Your task to perform on an android device: Do I have any events this weekend? Image 0: 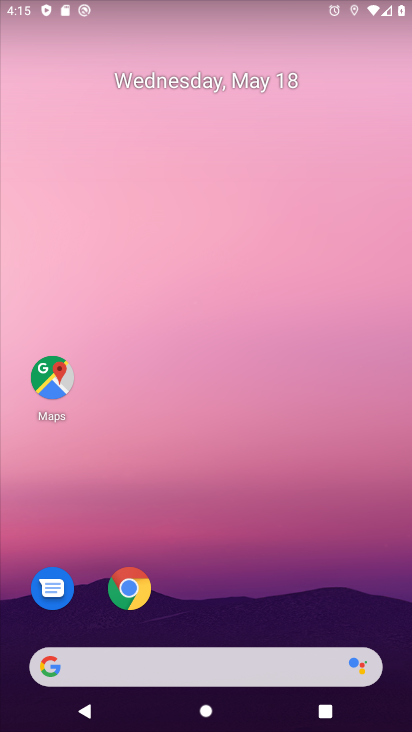
Step 0: drag from (270, 599) to (291, 122)
Your task to perform on an android device: Do I have any events this weekend? Image 1: 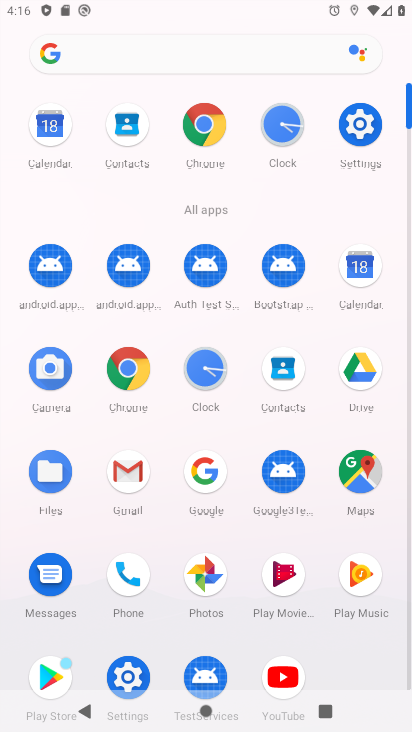
Step 1: click (367, 263)
Your task to perform on an android device: Do I have any events this weekend? Image 2: 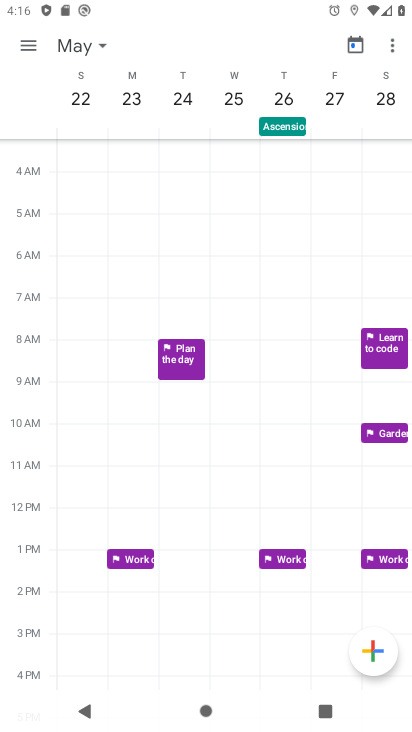
Step 2: task complete